Your task to perform on an android device: toggle show notifications on the lock screen Image 0: 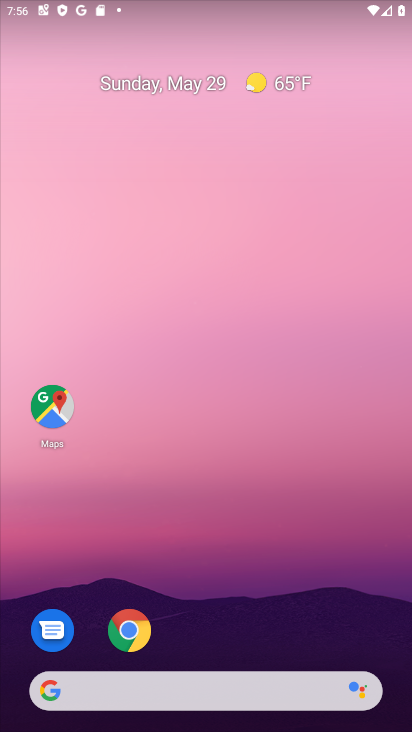
Step 0: drag from (234, 726) to (238, 50)
Your task to perform on an android device: toggle show notifications on the lock screen Image 1: 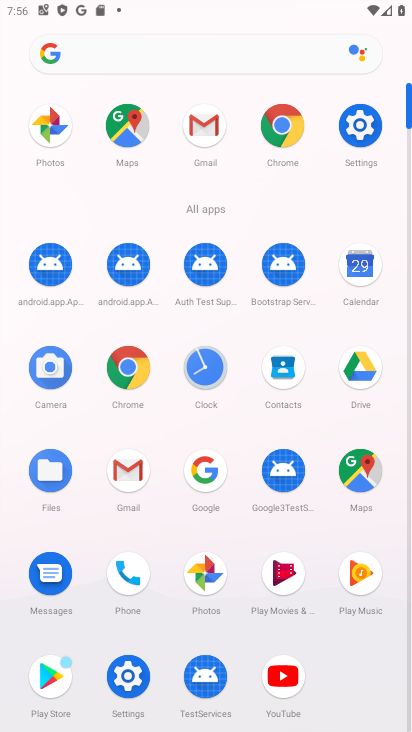
Step 1: click (356, 120)
Your task to perform on an android device: toggle show notifications on the lock screen Image 2: 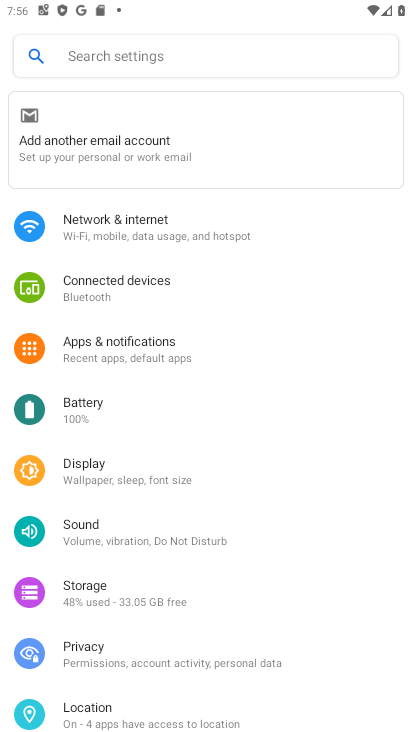
Step 2: click (127, 344)
Your task to perform on an android device: toggle show notifications on the lock screen Image 3: 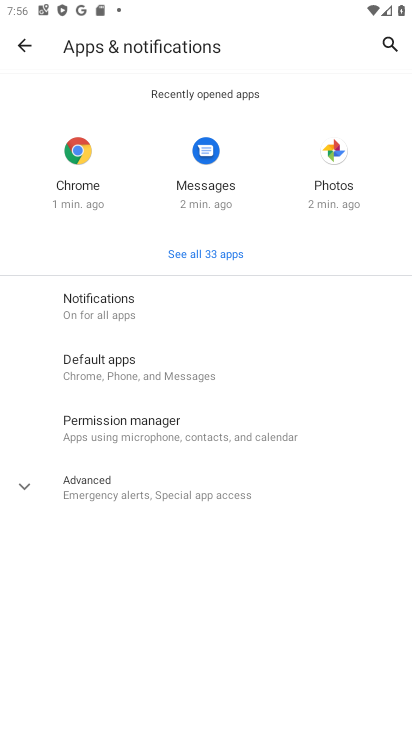
Step 3: click (88, 300)
Your task to perform on an android device: toggle show notifications on the lock screen Image 4: 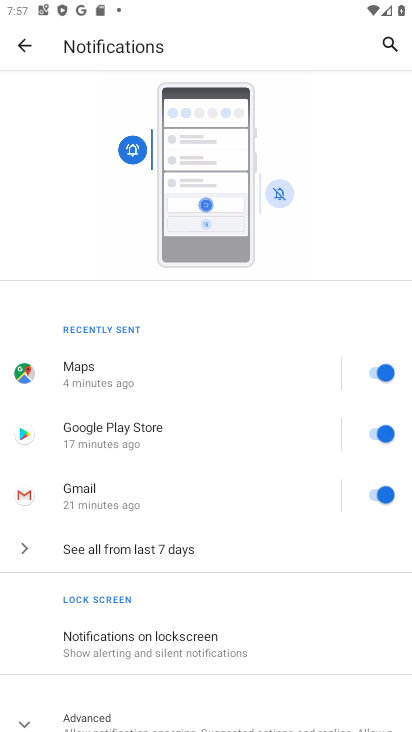
Step 4: click (97, 646)
Your task to perform on an android device: toggle show notifications on the lock screen Image 5: 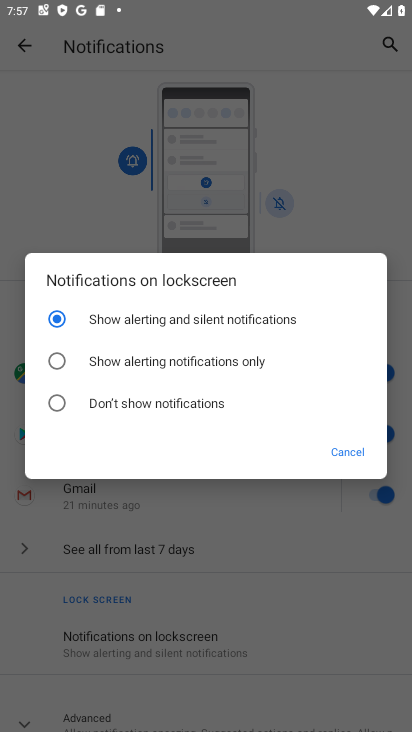
Step 5: click (56, 400)
Your task to perform on an android device: toggle show notifications on the lock screen Image 6: 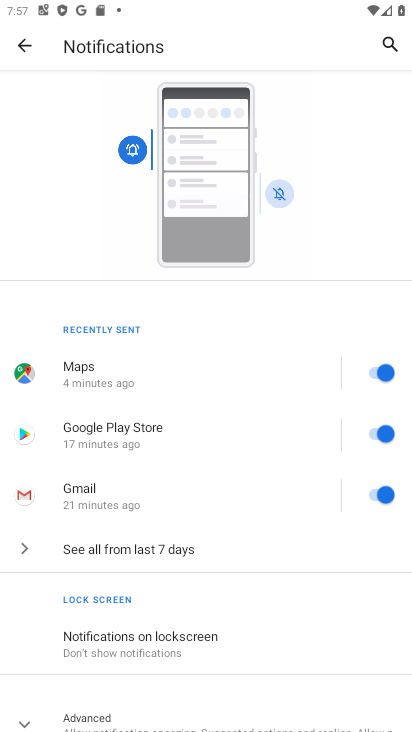
Step 6: task complete